Your task to perform on an android device: toggle show notifications on the lock screen Image 0: 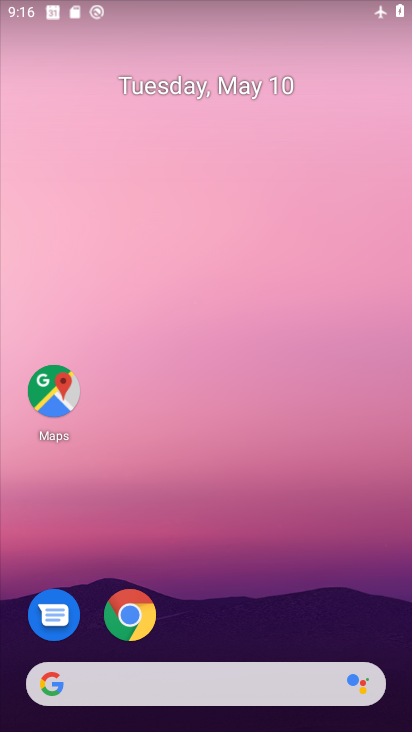
Step 0: drag from (201, 215) to (201, 90)
Your task to perform on an android device: toggle show notifications on the lock screen Image 1: 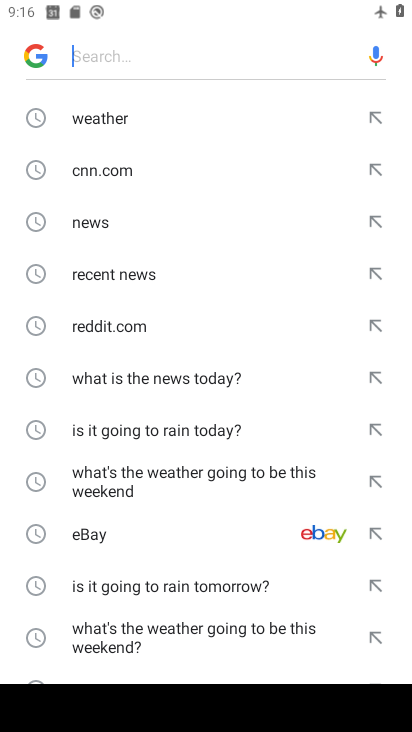
Step 1: press home button
Your task to perform on an android device: toggle show notifications on the lock screen Image 2: 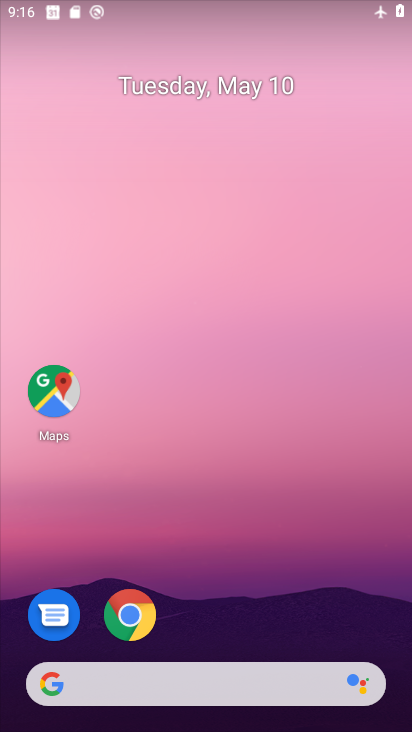
Step 2: drag from (202, 569) to (224, 161)
Your task to perform on an android device: toggle show notifications on the lock screen Image 3: 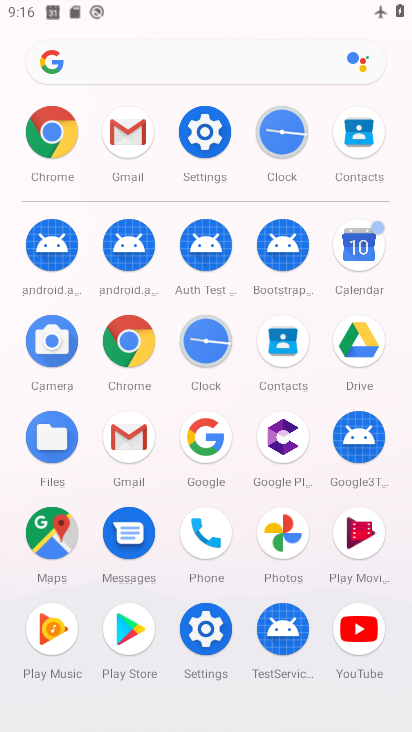
Step 3: click (192, 129)
Your task to perform on an android device: toggle show notifications on the lock screen Image 4: 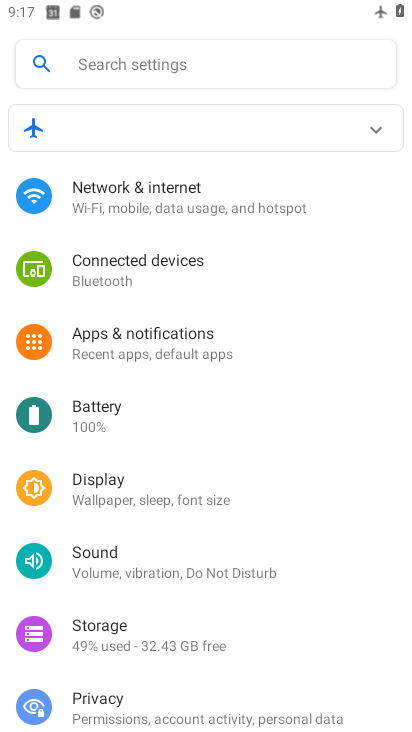
Step 4: drag from (182, 553) to (183, 244)
Your task to perform on an android device: toggle show notifications on the lock screen Image 5: 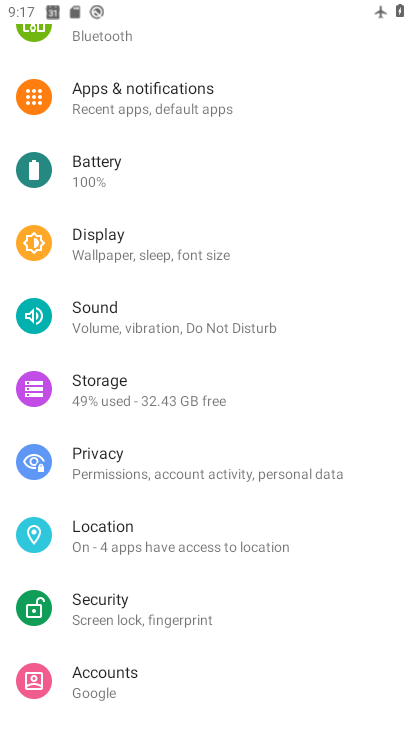
Step 5: click (119, 104)
Your task to perform on an android device: toggle show notifications on the lock screen Image 6: 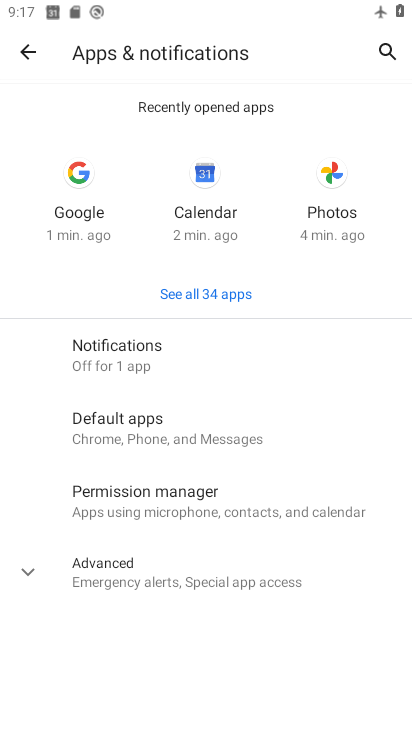
Step 6: click (162, 343)
Your task to perform on an android device: toggle show notifications on the lock screen Image 7: 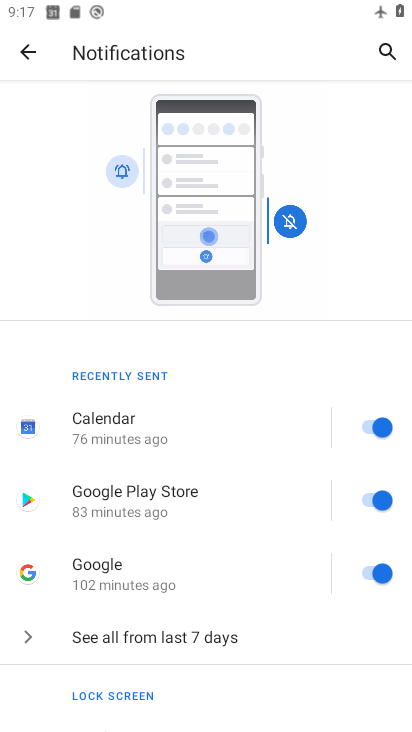
Step 7: drag from (194, 625) to (185, 284)
Your task to perform on an android device: toggle show notifications on the lock screen Image 8: 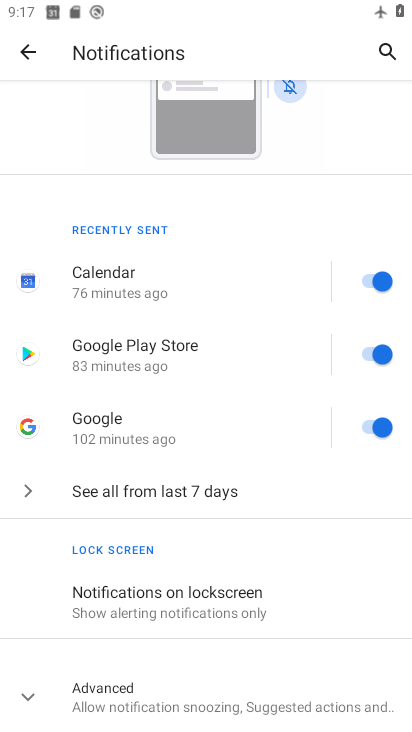
Step 8: click (215, 604)
Your task to perform on an android device: toggle show notifications on the lock screen Image 9: 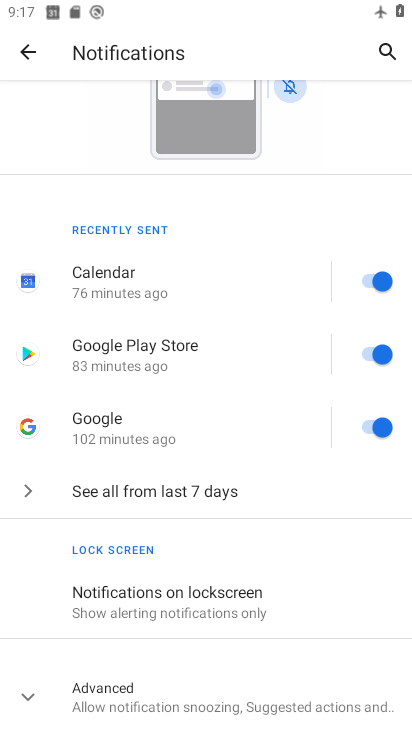
Step 9: click (215, 604)
Your task to perform on an android device: toggle show notifications on the lock screen Image 10: 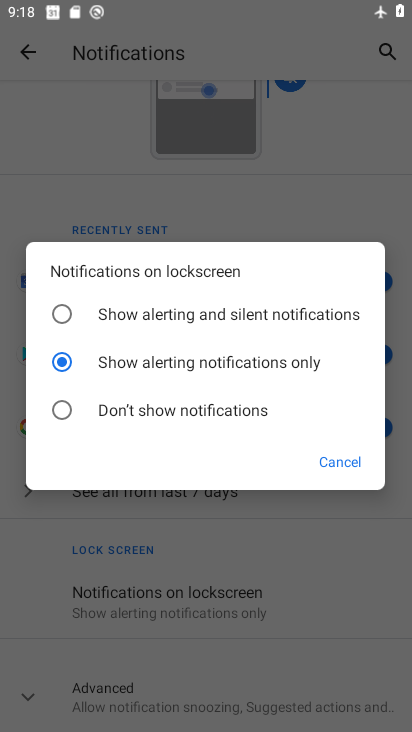
Step 10: click (79, 370)
Your task to perform on an android device: toggle show notifications on the lock screen Image 11: 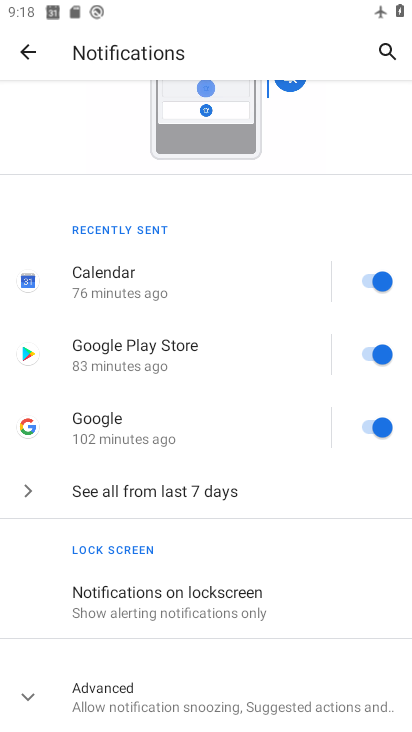
Step 11: task complete